Your task to perform on an android device: Open Youtube and go to "Your channel" Image 0: 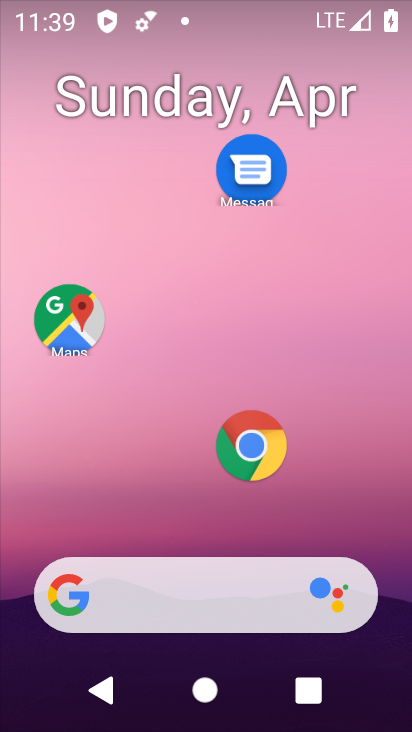
Step 0: drag from (222, 584) to (349, 71)
Your task to perform on an android device: Open Youtube and go to "Your channel" Image 1: 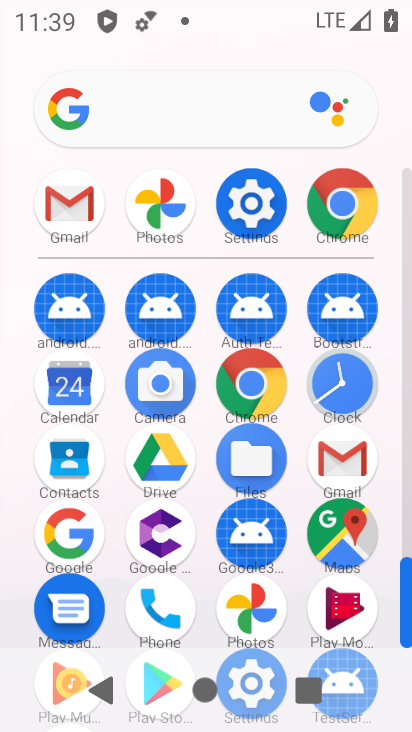
Step 1: drag from (196, 624) to (365, 68)
Your task to perform on an android device: Open Youtube and go to "Your channel" Image 2: 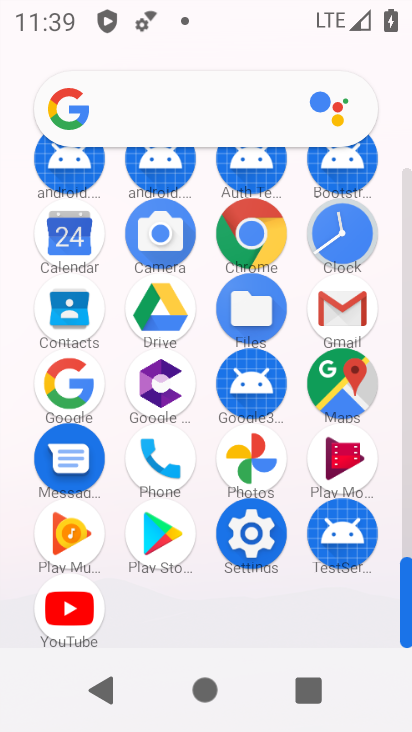
Step 2: click (76, 613)
Your task to perform on an android device: Open Youtube and go to "Your channel" Image 3: 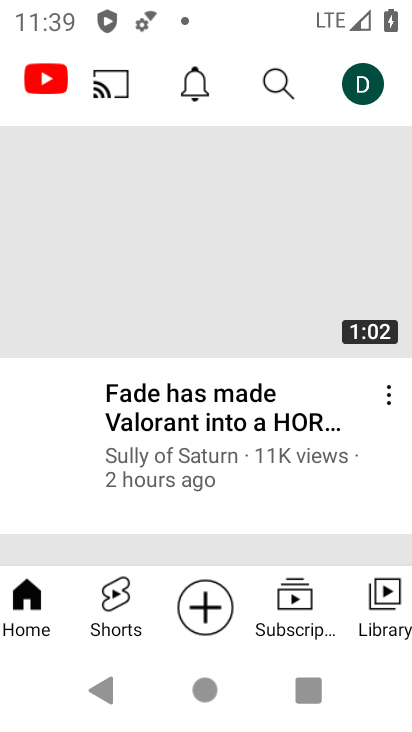
Step 3: click (361, 89)
Your task to perform on an android device: Open Youtube and go to "Your channel" Image 4: 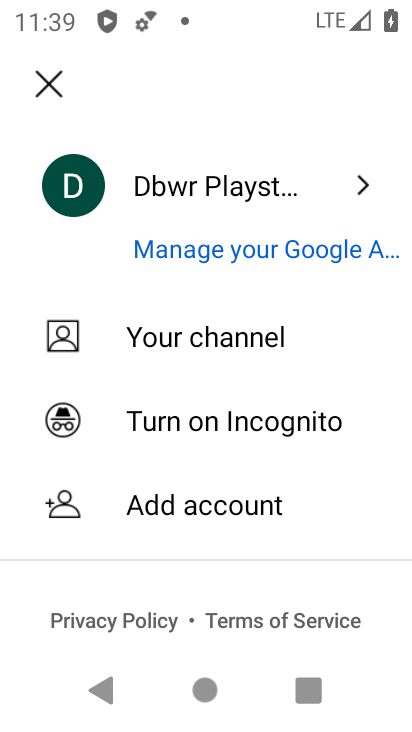
Step 4: click (228, 338)
Your task to perform on an android device: Open Youtube and go to "Your channel" Image 5: 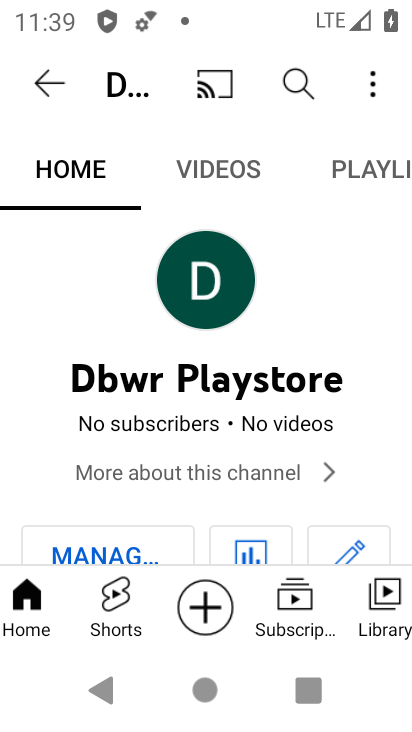
Step 5: task complete